Your task to perform on an android device: Go to calendar. Show me events next week Image 0: 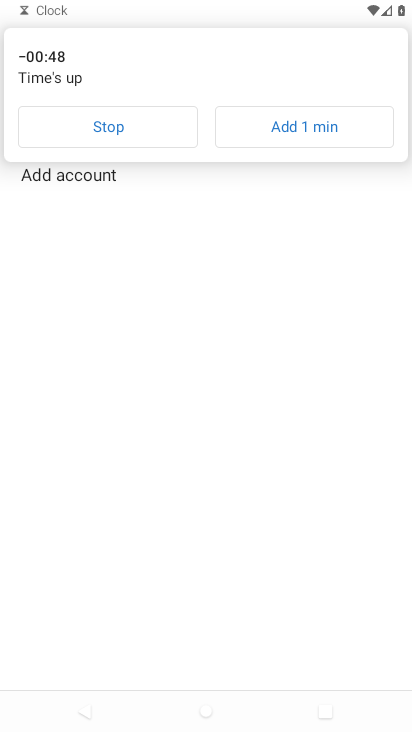
Step 0: click (132, 129)
Your task to perform on an android device: Go to calendar. Show me events next week Image 1: 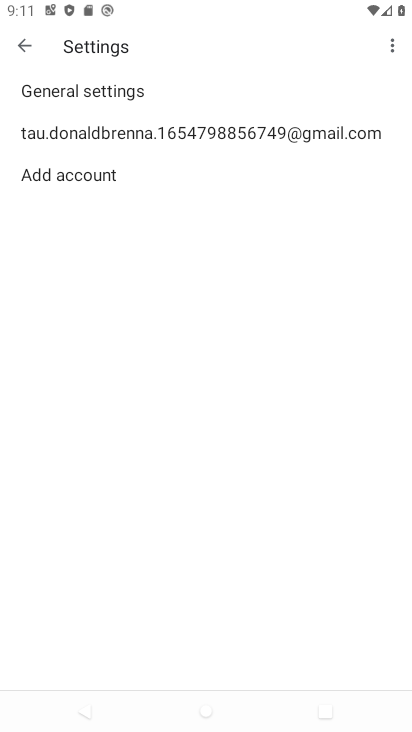
Step 1: press home button
Your task to perform on an android device: Go to calendar. Show me events next week Image 2: 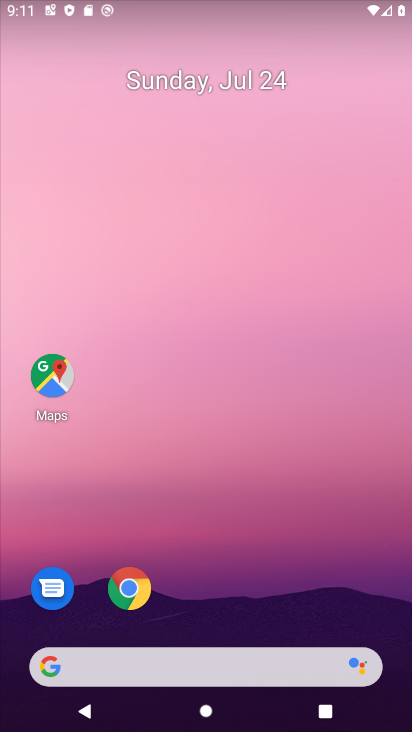
Step 2: drag from (285, 592) to (245, 5)
Your task to perform on an android device: Go to calendar. Show me events next week Image 3: 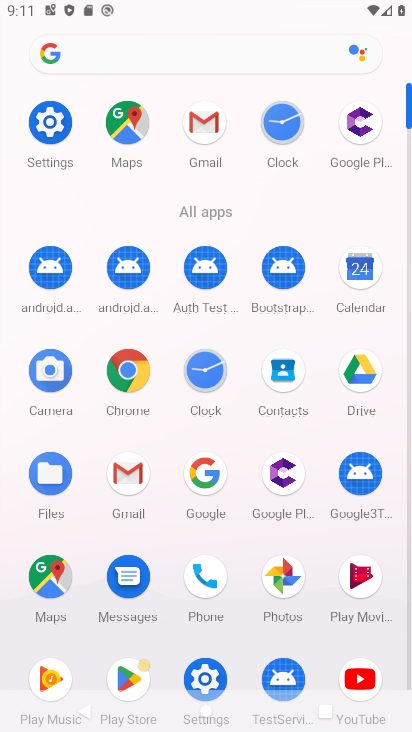
Step 3: click (357, 267)
Your task to perform on an android device: Go to calendar. Show me events next week Image 4: 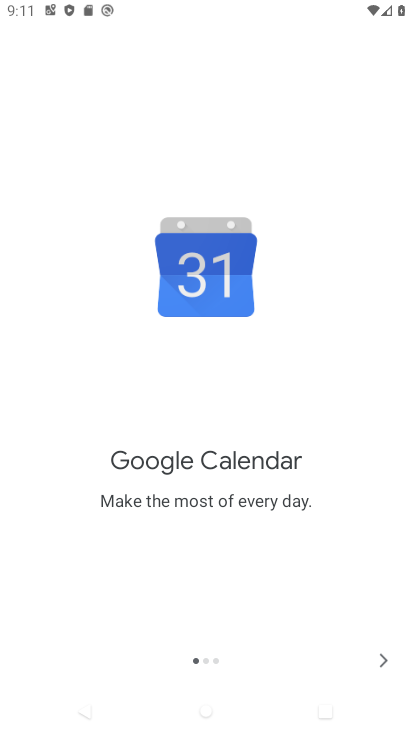
Step 4: click (384, 662)
Your task to perform on an android device: Go to calendar. Show me events next week Image 5: 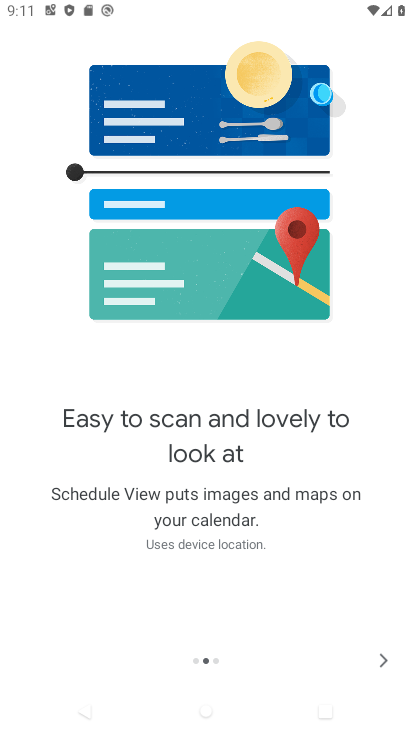
Step 5: click (384, 662)
Your task to perform on an android device: Go to calendar. Show me events next week Image 6: 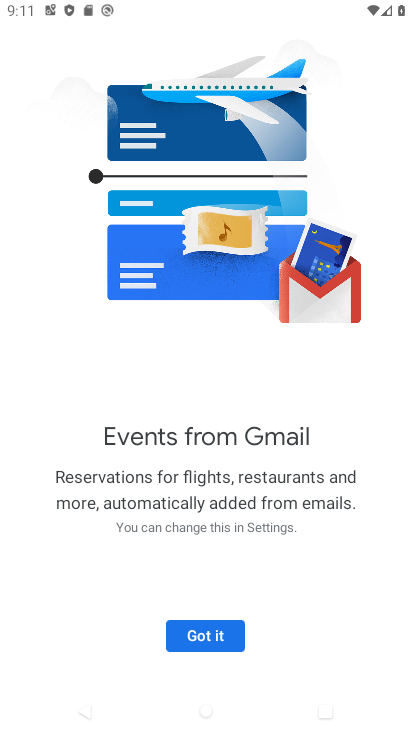
Step 6: click (203, 639)
Your task to perform on an android device: Go to calendar. Show me events next week Image 7: 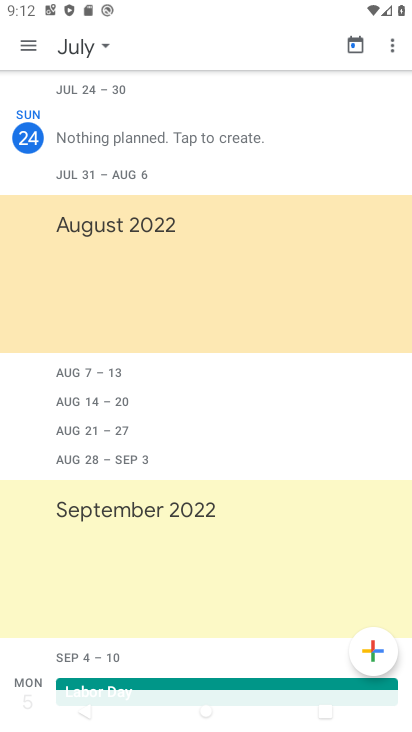
Step 7: click (106, 47)
Your task to perform on an android device: Go to calendar. Show me events next week Image 8: 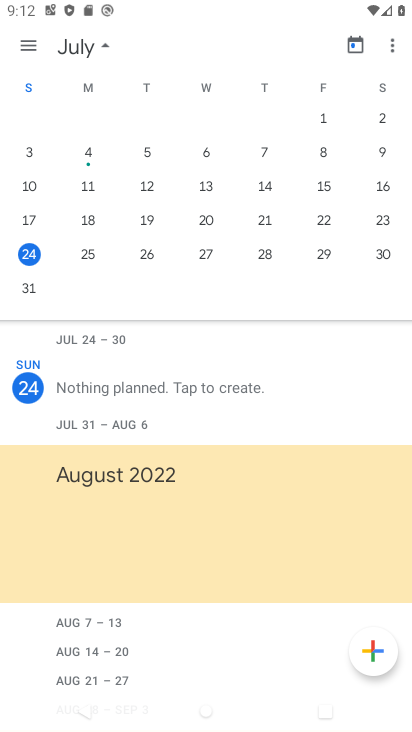
Step 8: click (25, 46)
Your task to perform on an android device: Go to calendar. Show me events next week Image 9: 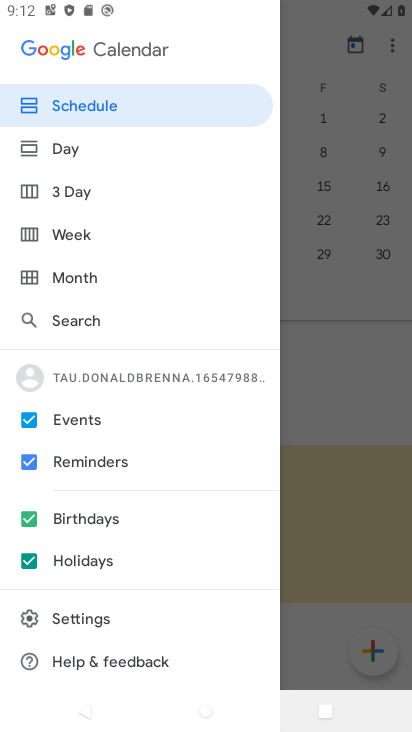
Step 9: click (68, 238)
Your task to perform on an android device: Go to calendar. Show me events next week Image 10: 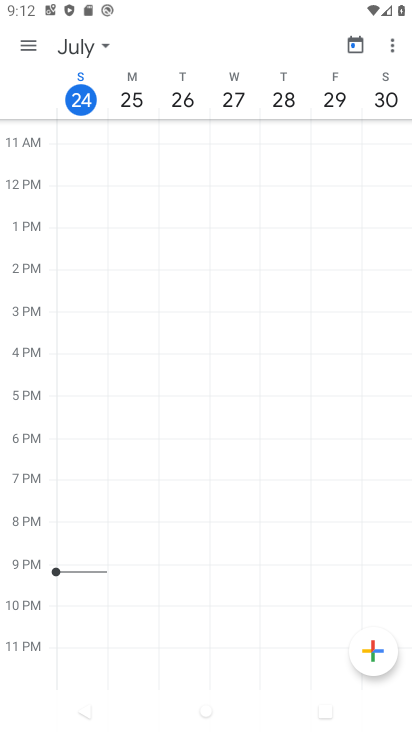
Step 10: drag from (353, 327) to (15, 398)
Your task to perform on an android device: Go to calendar. Show me events next week Image 11: 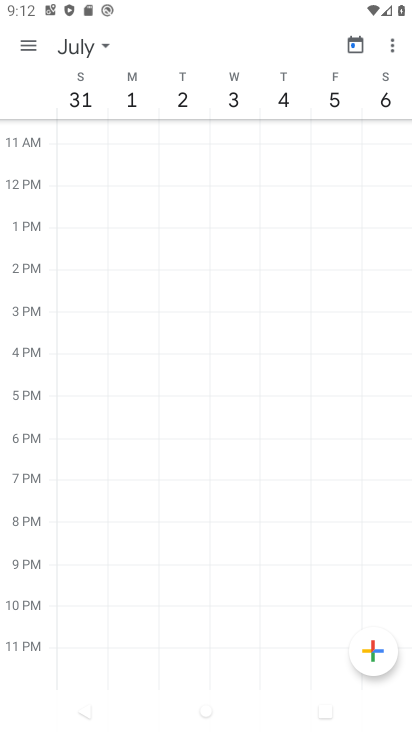
Step 11: drag from (214, 559) to (237, 264)
Your task to perform on an android device: Go to calendar. Show me events next week Image 12: 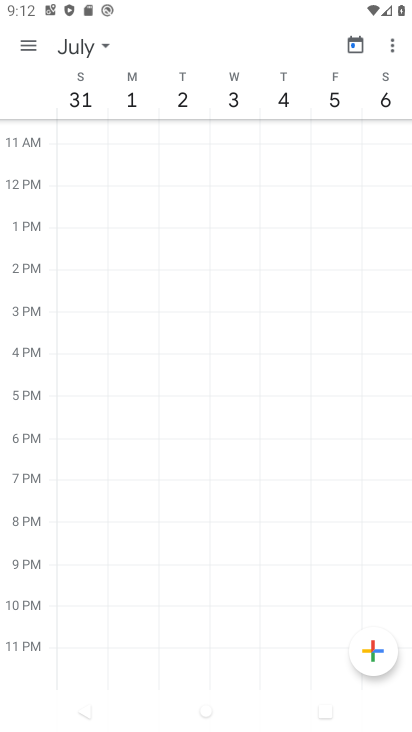
Step 12: click (24, 44)
Your task to perform on an android device: Go to calendar. Show me events next week Image 13: 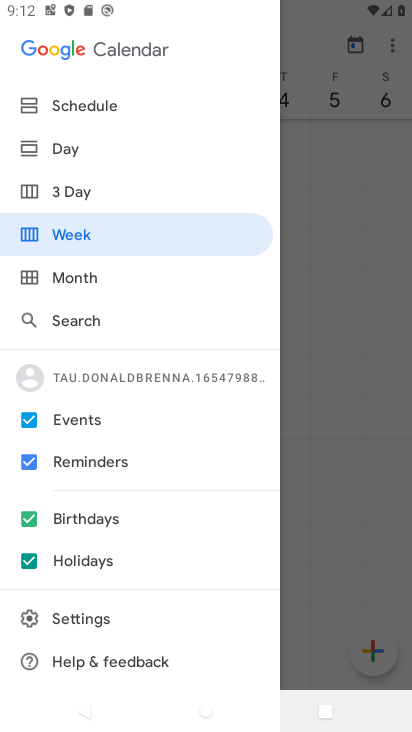
Step 13: click (37, 225)
Your task to perform on an android device: Go to calendar. Show me events next week Image 14: 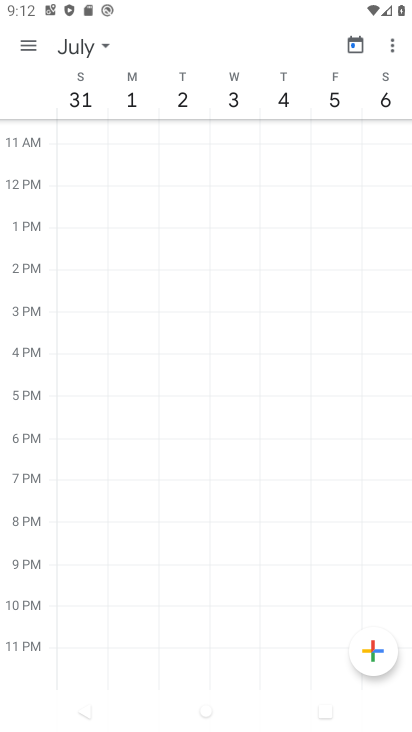
Step 14: task complete